Your task to perform on an android device: Open calendar and show me the second week of next month Image 0: 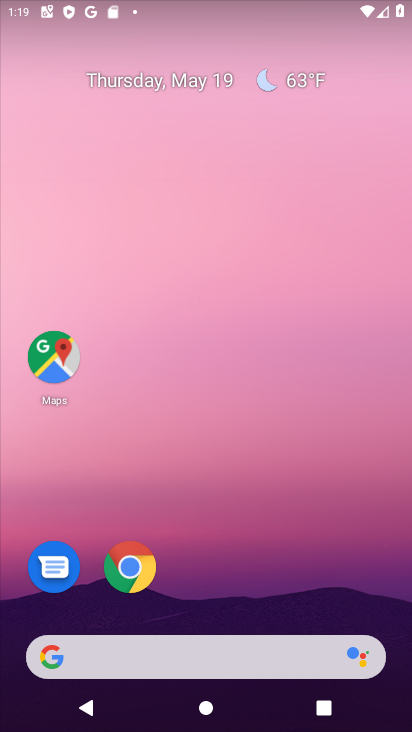
Step 0: drag from (320, 554) to (261, 95)
Your task to perform on an android device: Open calendar and show me the second week of next month Image 1: 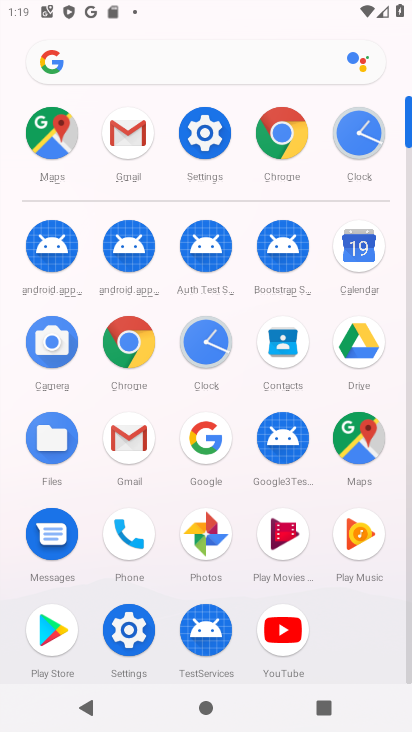
Step 1: click (346, 245)
Your task to perform on an android device: Open calendar and show me the second week of next month Image 2: 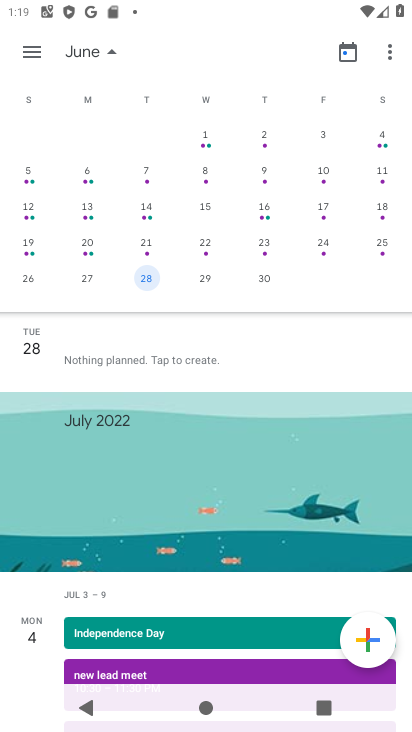
Step 2: drag from (348, 234) to (10, 179)
Your task to perform on an android device: Open calendar and show me the second week of next month Image 3: 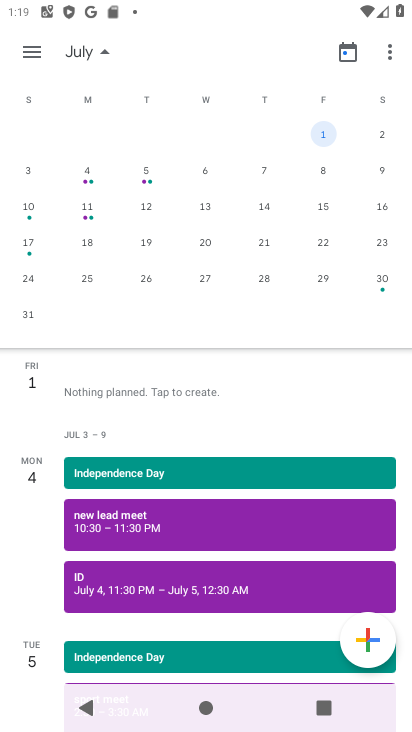
Step 3: click (273, 209)
Your task to perform on an android device: Open calendar and show me the second week of next month Image 4: 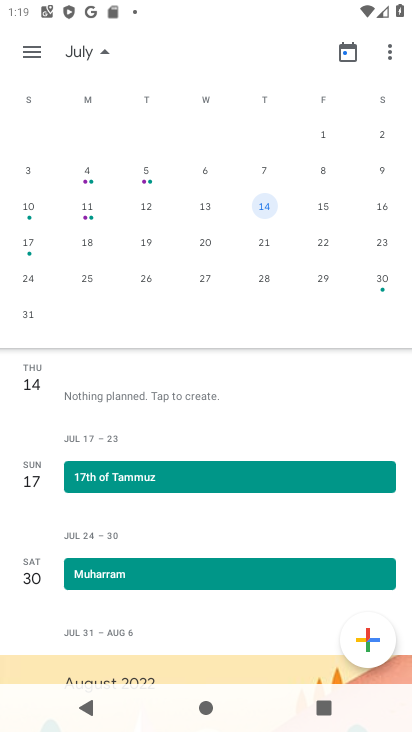
Step 4: task complete